Your task to perform on an android device: Open Android settings Image 0: 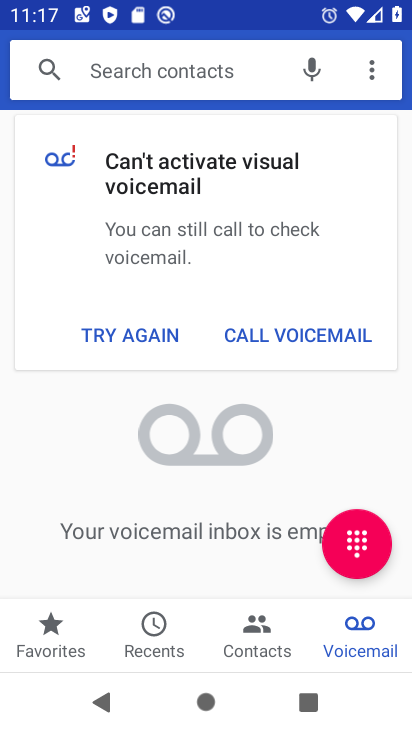
Step 0: press home button
Your task to perform on an android device: Open Android settings Image 1: 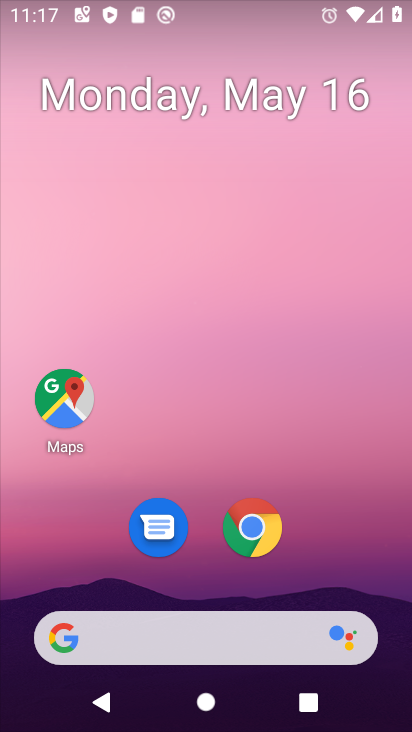
Step 1: drag from (349, 602) to (274, 25)
Your task to perform on an android device: Open Android settings Image 2: 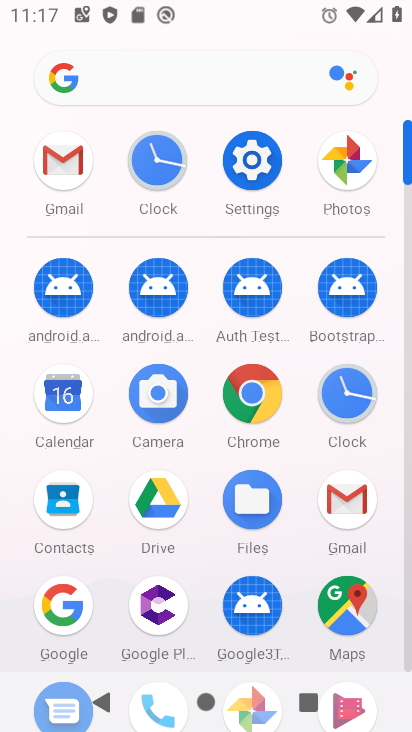
Step 2: click (247, 167)
Your task to perform on an android device: Open Android settings Image 3: 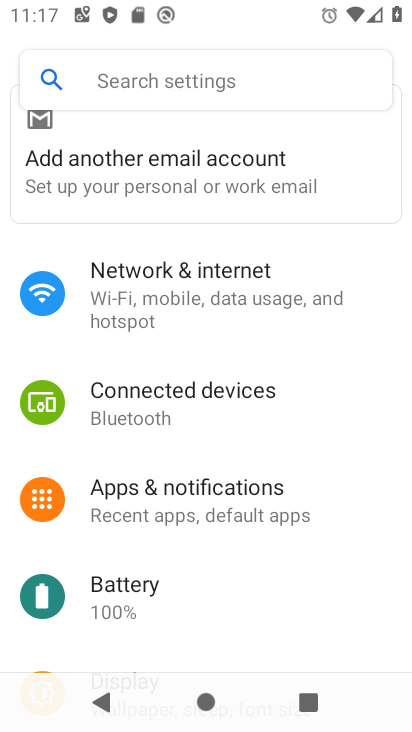
Step 3: task complete